Your task to perform on an android device: Open Youtube and go to "Your channel" Image 0: 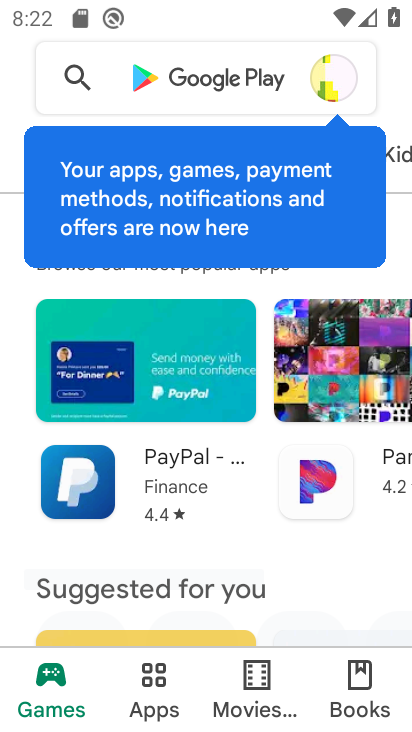
Step 0: press home button
Your task to perform on an android device: Open Youtube and go to "Your channel" Image 1: 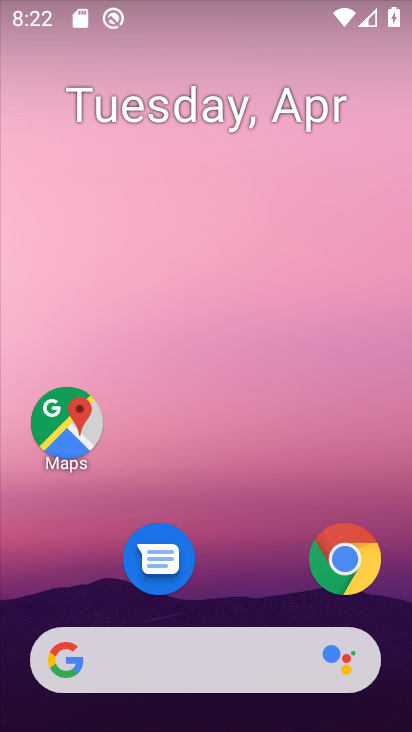
Step 1: drag from (269, 697) to (247, 83)
Your task to perform on an android device: Open Youtube and go to "Your channel" Image 2: 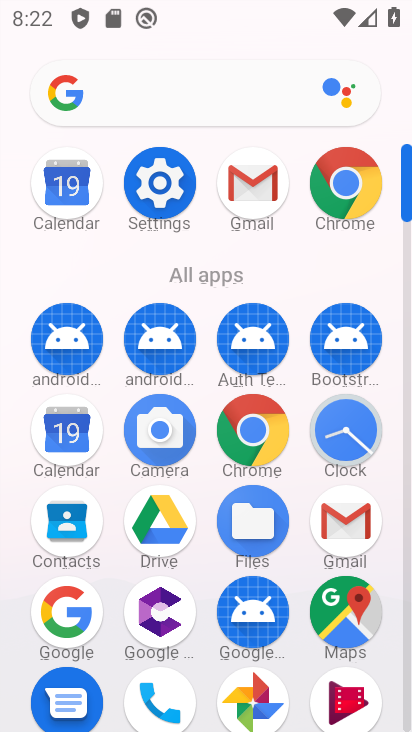
Step 2: drag from (203, 652) to (185, 405)
Your task to perform on an android device: Open Youtube and go to "Your channel" Image 3: 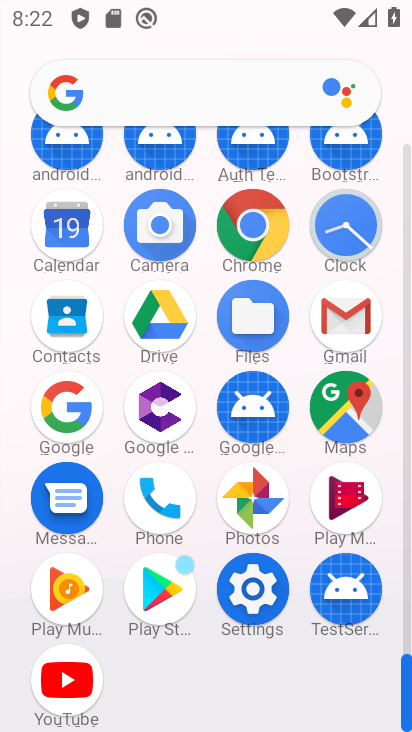
Step 3: click (77, 671)
Your task to perform on an android device: Open Youtube and go to "Your channel" Image 4: 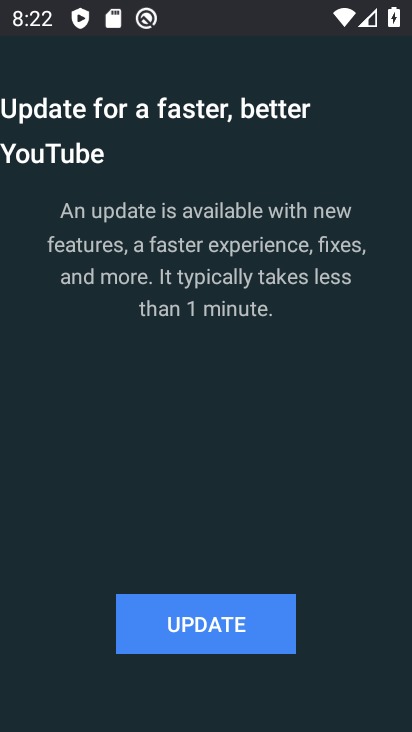
Step 4: click (176, 642)
Your task to perform on an android device: Open Youtube and go to "Your channel" Image 5: 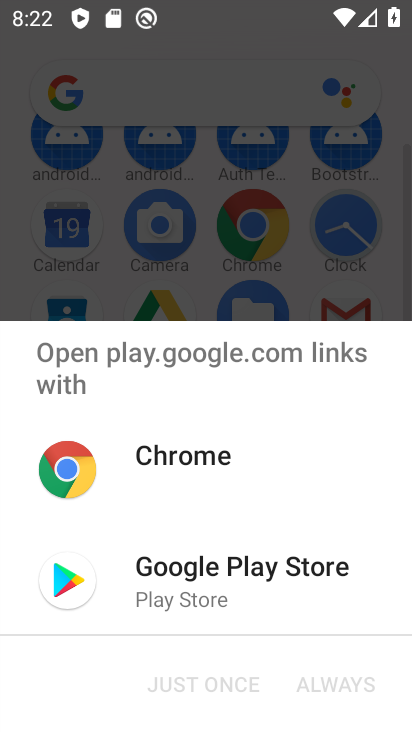
Step 5: click (185, 605)
Your task to perform on an android device: Open Youtube and go to "Your channel" Image 6: 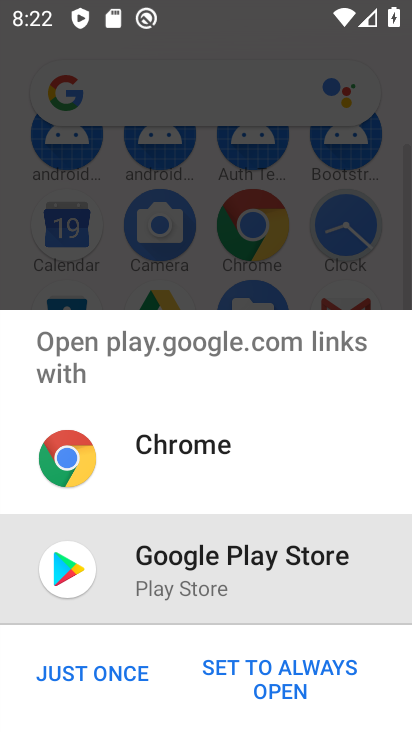
Step 6: click (59, 681)
Your task to perform on an android device: Open Youtube and go to "Your channel" Image 7: 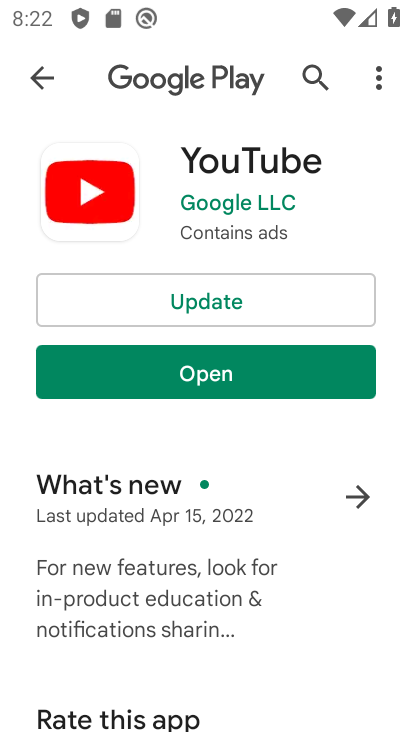
Step 7: click (204, 285)
Your task to perform on an android device: Open Youtube and go to "Your channel" Image 8: 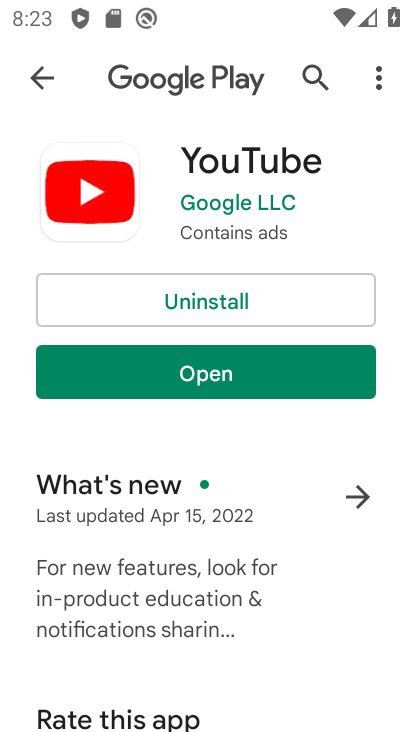
Step 8: click (177, 368)
Your task to perform on an android device: Open Youtube and go to "Your channel" Image 9: 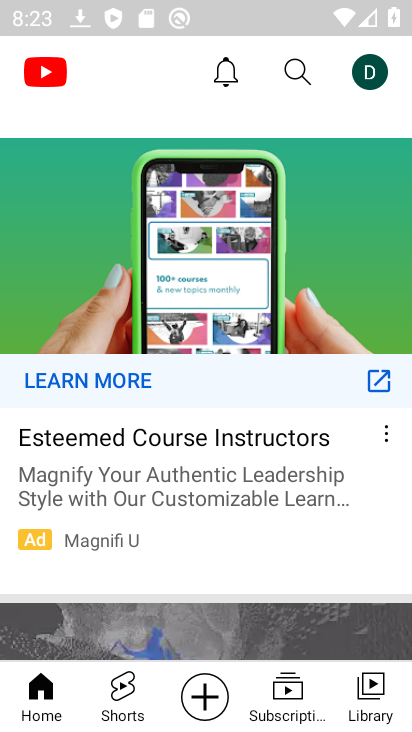
Step 9: click (361, 72)
Your task to perform on an android device: Open Youtube and go to "Your channel" Image 10: 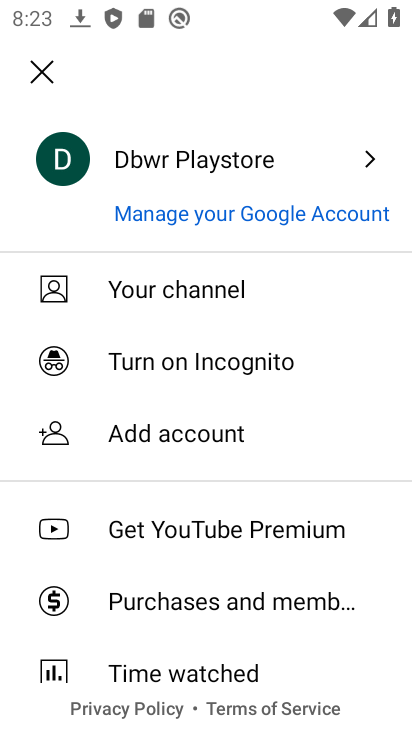
Step 10: click (186, 292)
Your task to perform on an android device: Open Youtube and go to "Your channel" Image 11: 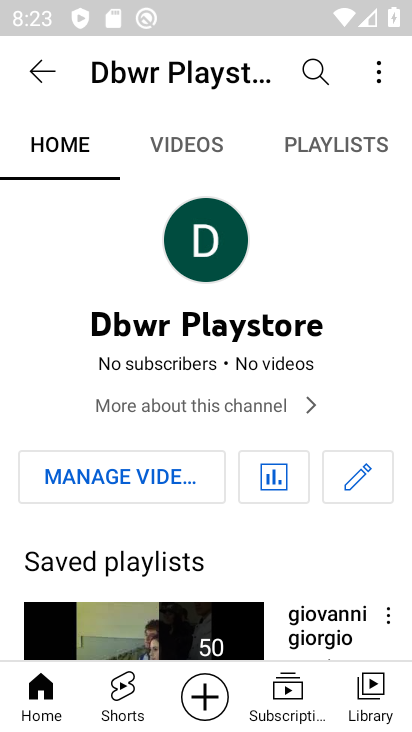
Step 11: task complete